Your task to perform on an android device: What's the weather going to be tomorrow? Image 0: 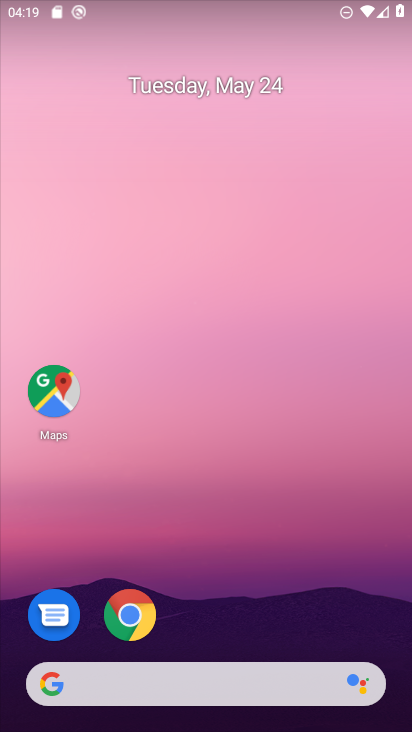
Step 0: drag from (223, 564) to (240, 108)
Your task to perform on an android device: What's the weather going to be tomorrow? Image 1: 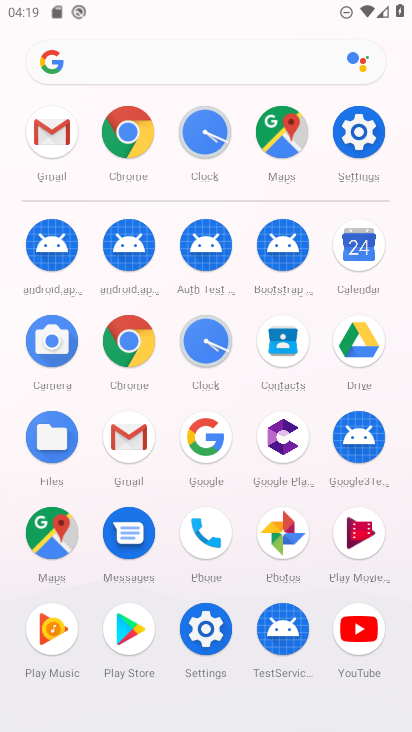
Step 1: drag from (8, 488) to (22, 268)
Your task to perform on an android device: What's the weather going to be tomorrow? Image 2: 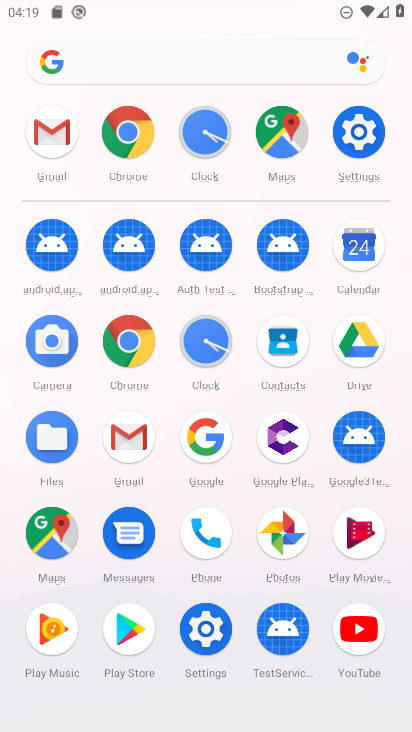
Step 2: click (120, 337)
Your task to perform on an android device: What's the weather going to be tomorrow? Image 3: 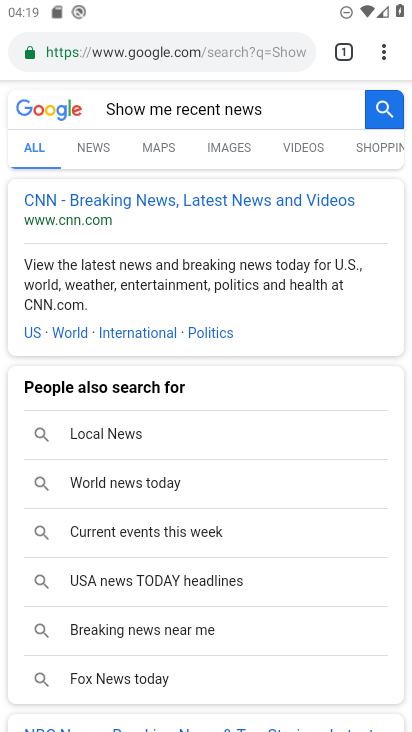
Step 3: click (159, 51)
Your task to perform on an android device: What's the weather going to be tomorrow? Image 4: 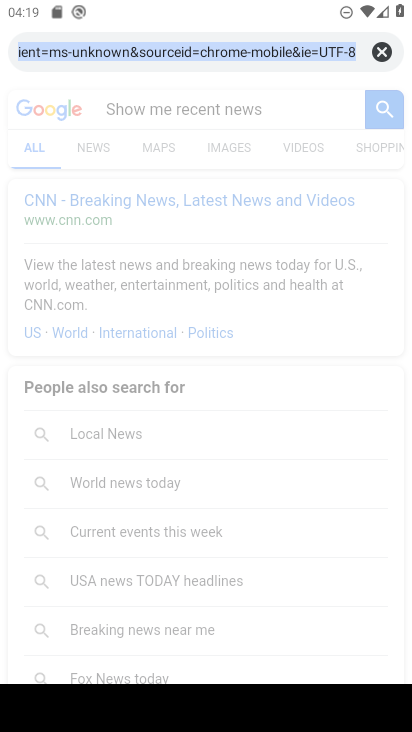
Step 4: click (390, 48)
Your task to perform on an android device: What's the weather going to be tomorrow? Image 5: 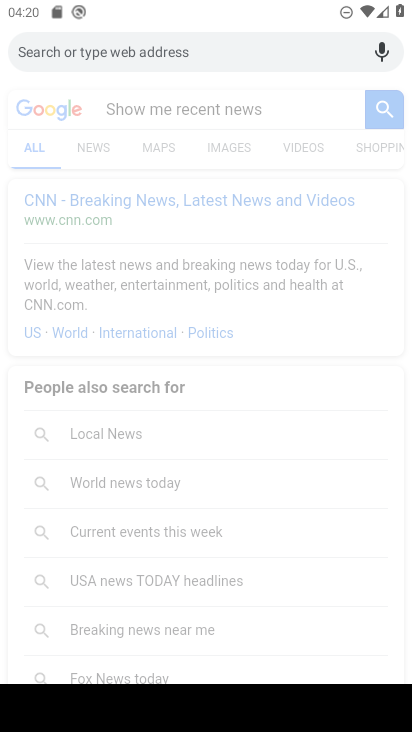
Step 5: type " What's the weather going to be tomorrow?"
Your task to perform on an android device: What's the weather going to be tomorrow? Image 6: 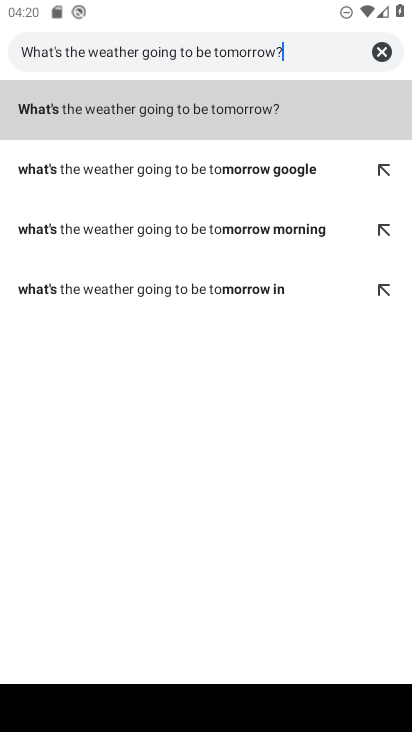
Step 6: click (199, 107)
Your task to perform on an android device: What's the weather going to be tomorrow? Image 7: 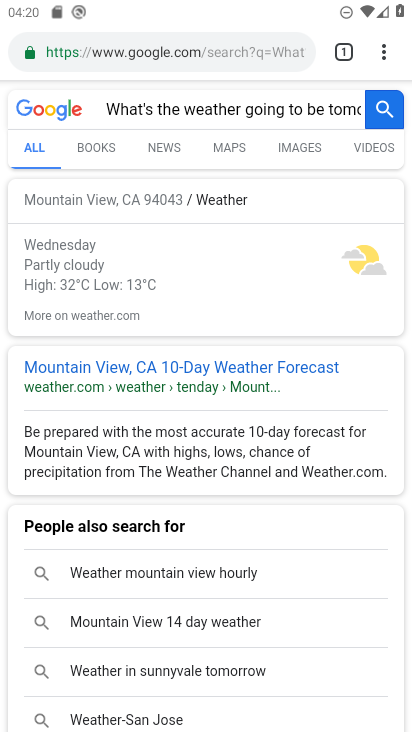
Step 7: task complete